Your task to perform on an android device: turn off picture-in-picture Image 0: 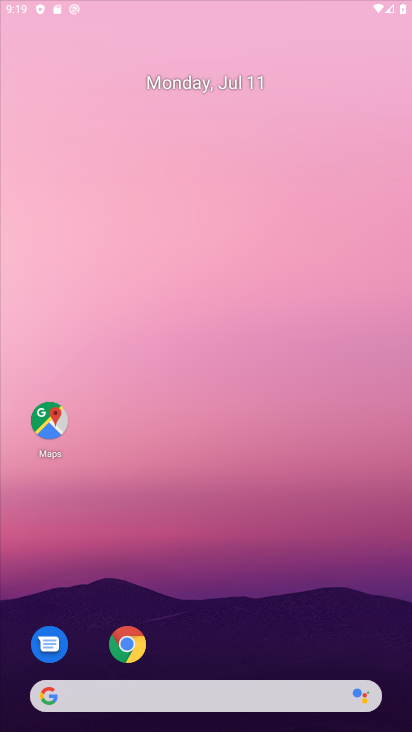
Step 0: press home button
Your task to perform on an android device: turn off picture-in-picture Image 1: 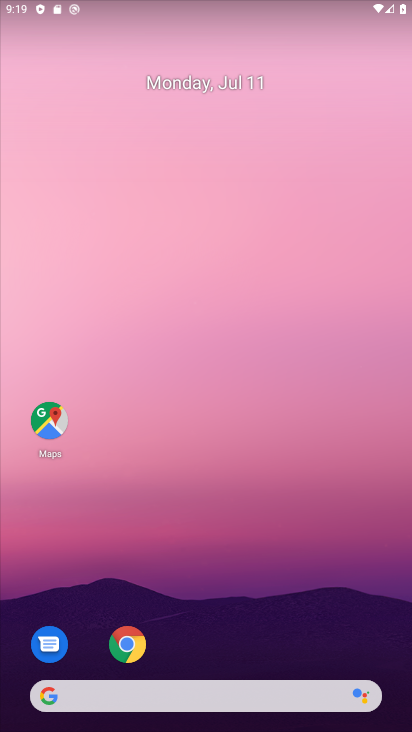
Step 1: click (130, 639)
Your task to perform on an android device: turn off picture-in-picture Image 2: 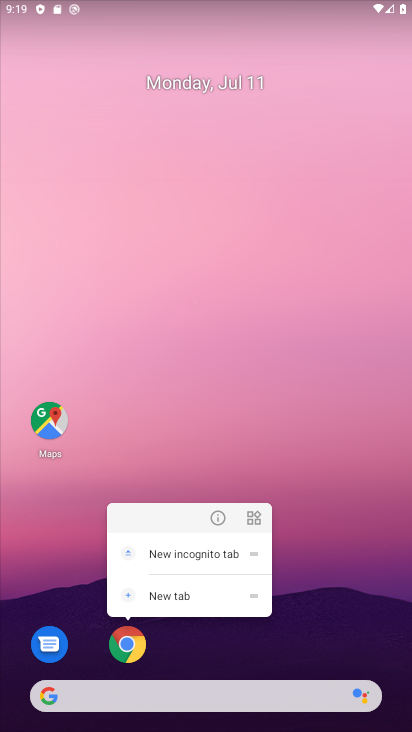
Step 2: click (214, 516)
Your task to perform on an android device: turn off picture-in-picture Image 3: 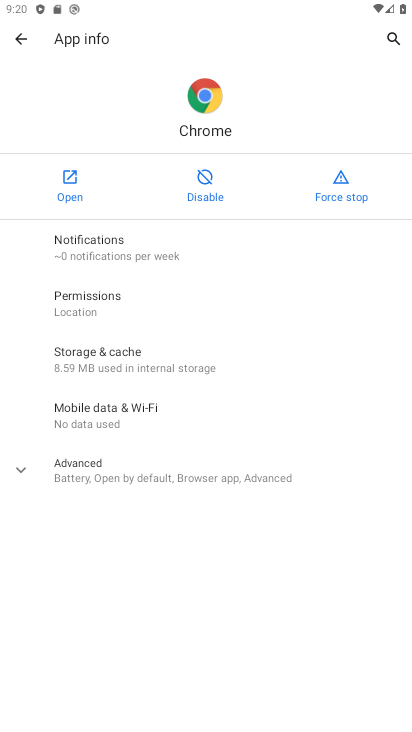
Step 3: click (33, 459)
Your task to perform on an android device: turn off picture-in-picture Image 4: 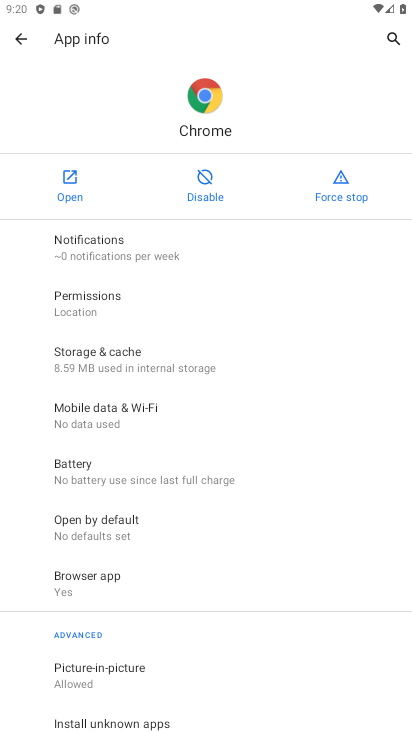
Step 4: click (108, 675)
Your task to perform on an android device: turn off picture-in-picture Image 5: 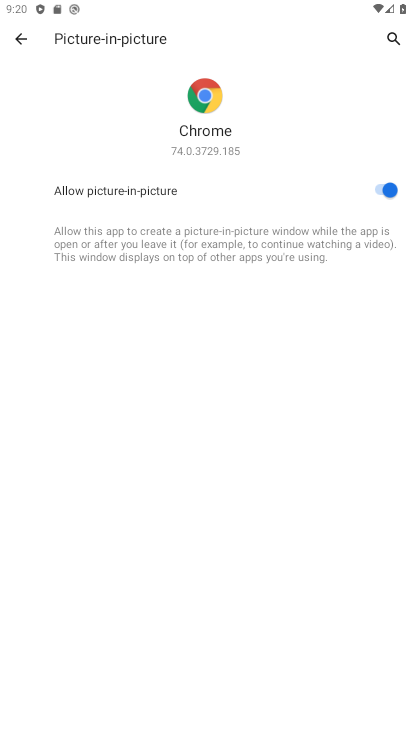
Step 5: click (380, 187)
Your task to perform on an android device: turn off picture-in-picture Image 6: 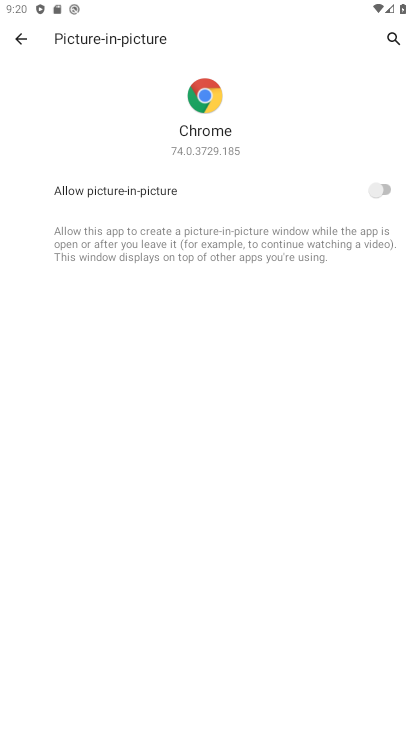
Step 6: task complete